Your task to perform on an android device: turn off smart reply in the gmail app Image 0: 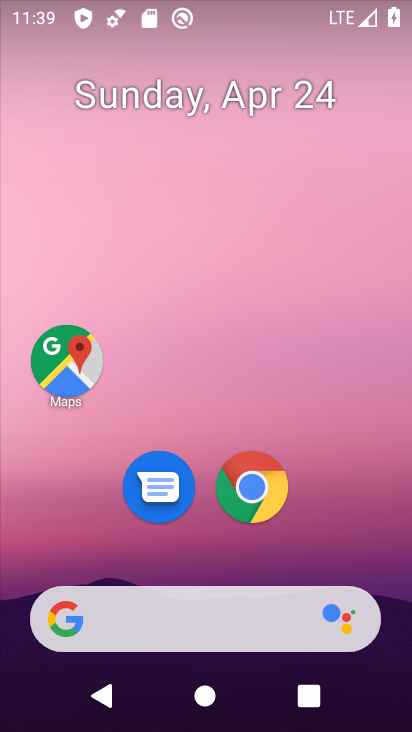
Step 0: click (278, 495)
Your task to perform on an android device: turn off smart reply in the gmail app Image 1: 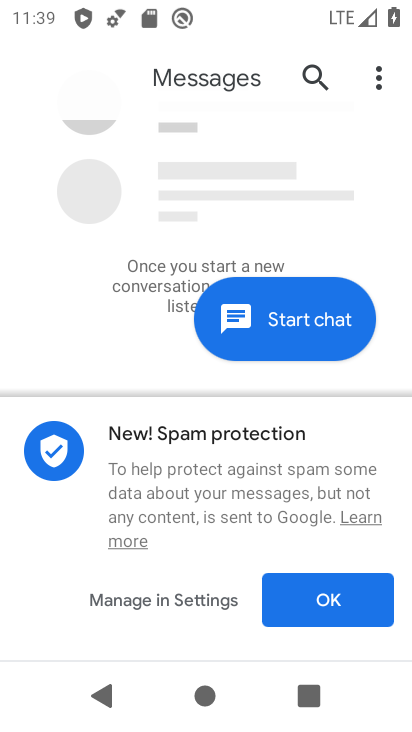
Step 1: press home button
Your task to perform on an android device: turn off smart reply in the gmail app Image 2: 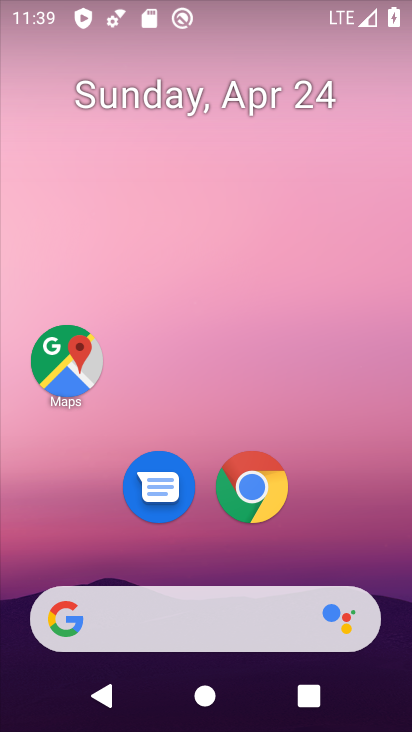
Step 2: drag from (232, 533) to (273, 114)
Your task to perform on an android device: turn off smart reply in the gmail app Image 3: 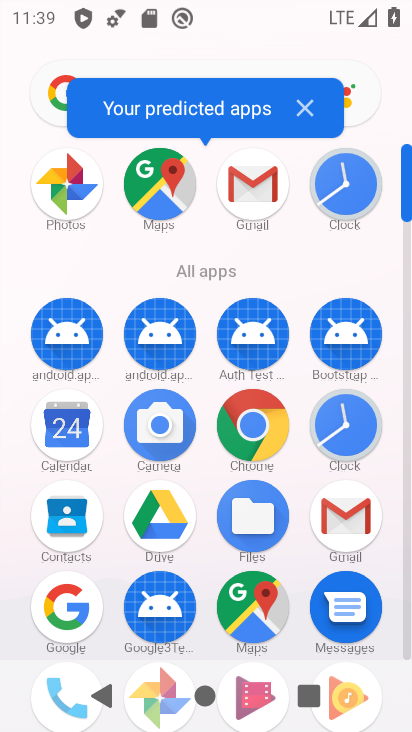
Step 3: click (263, 180)
Your task to perform on an android device: turn off smart reply in the gmail app Image 4: 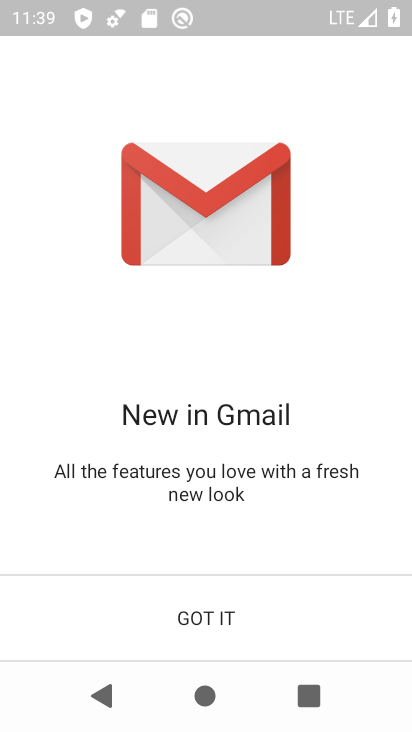
Step 4: click (208, 622)
Your task to perform on an android device: turn off smart reply in the gmail app Image 5: 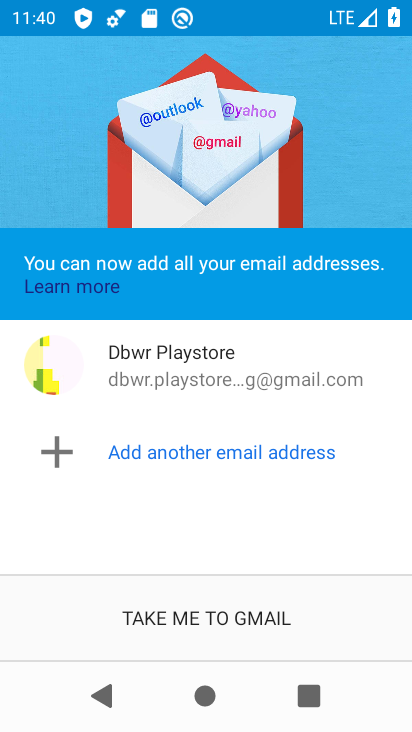
Step 5: click (208, 622)
Your task to perform on an android device: turn off smart reply in the gmail app Image 6: 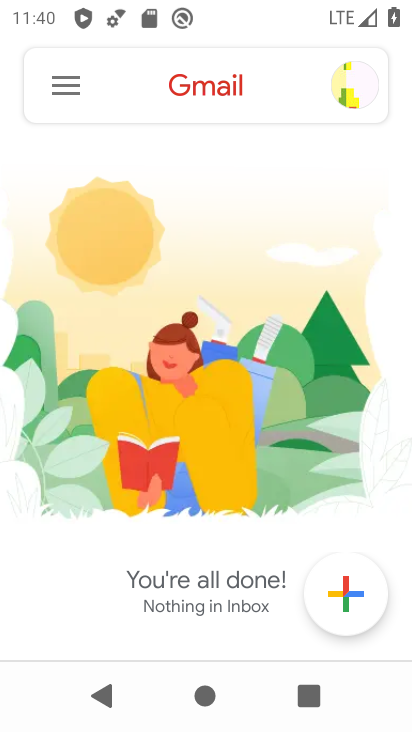
Step 6: click (77, 83)
Your task to perform on an android device: turn off smart reply in the gmail app Image 7: 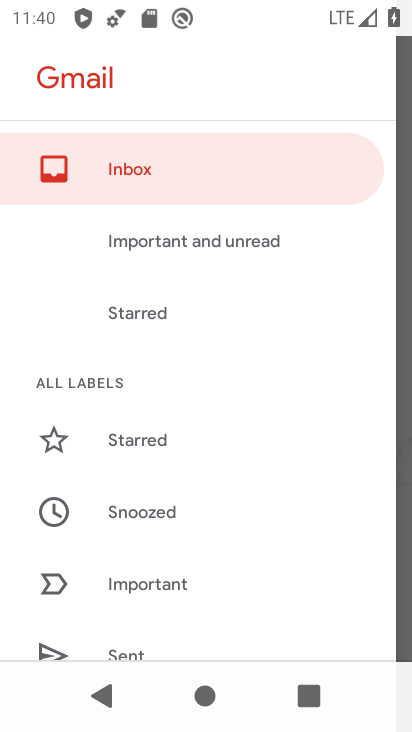
Step 7: drag from (164, 584) to (246, 225)
Your task to perform on an android device: turn off smart reply in the gmail app Image 8: 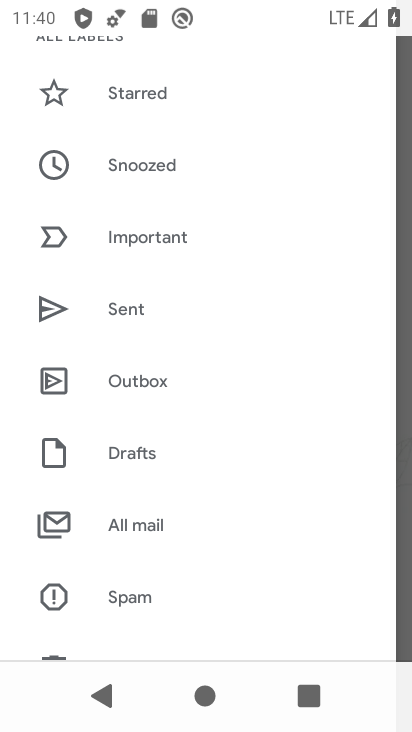
Step 8: drag from (203, 568) to (256, 208)
Your task to perform on an android device: turn off smart reply in the gmail app Image 9: 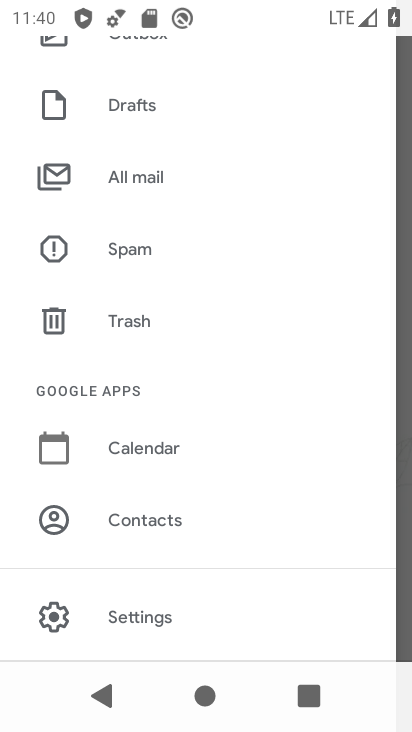
Step 9: click (129, 620)
Your task to perform on an android device: turn off smart reply in the gmail app Image 10: 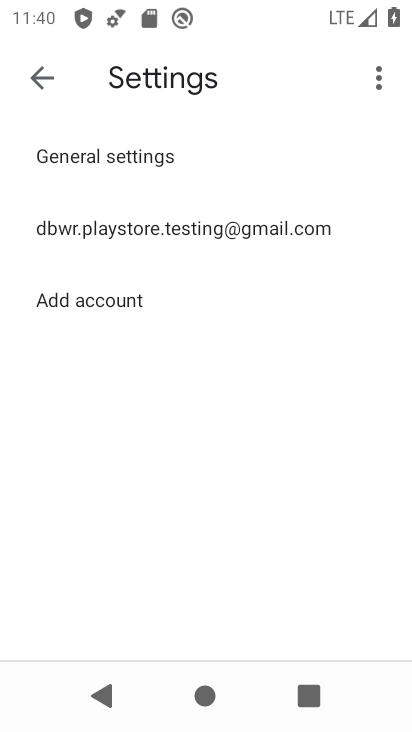
Step 10: click (167, 231)
Your task to perform on an android device: turn off smart reply in the gmail app Image 11: 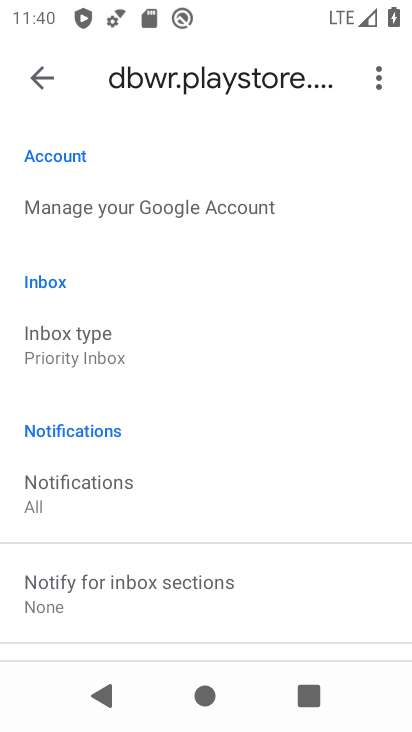
Step 11: drag from (166, 578) to (260, 234)
Your task to perform on an android device: turn off smart reply in the gmail app Image 12: 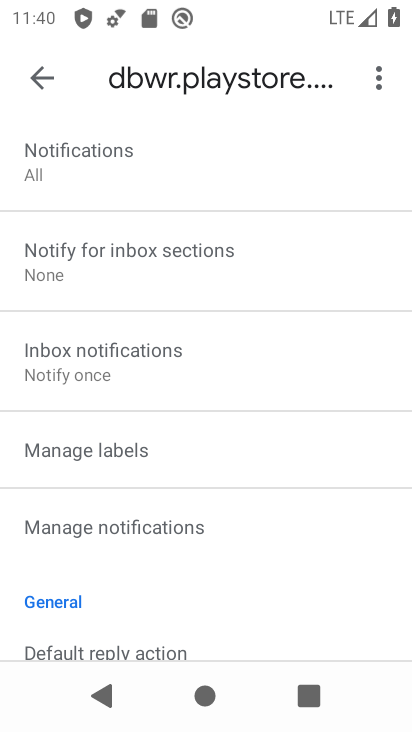
Step 12: drag from (184, 538) to (230, 248)
Your task to perform on an android device: turn off smart reply in the gmail app Image 13: 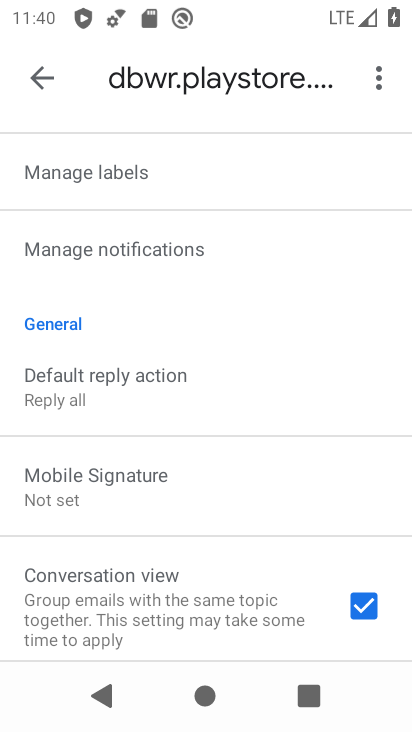
Step 13: drag from (190, 507) to (252, 169)
Your task to perform on an android device: turn off smart reply in the gmail app Image 14: 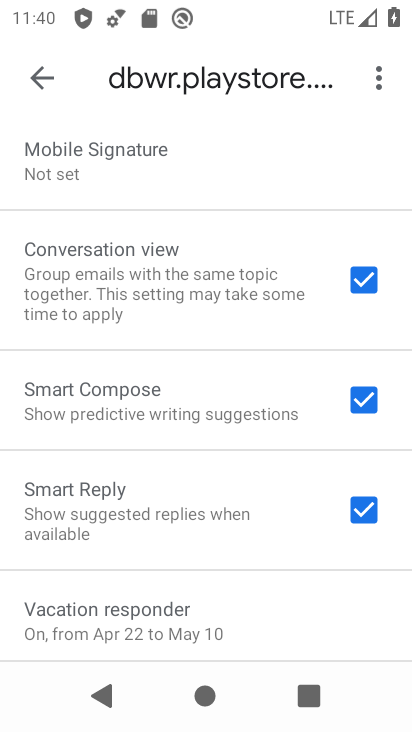
Step 14: click (363, 499)
Your task to perform on an android device: turn off smart reply in the gmail app Image 15: 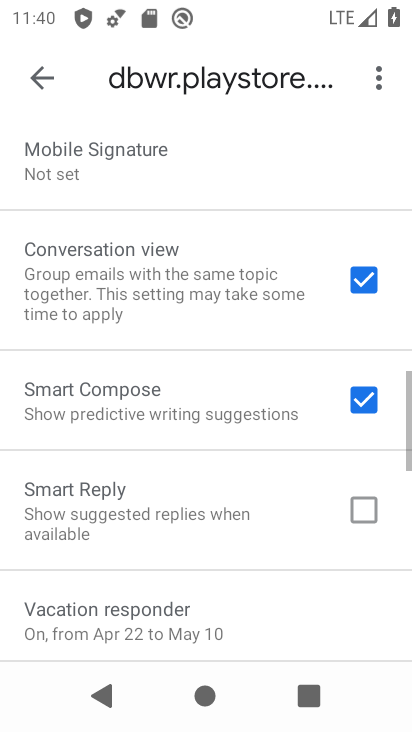
Step 15: task complete